Your task to perform on an android device: Clear the shopping cart on bestbuy.com. Add apple airpods to the cart on bestbuy.com Image 0: 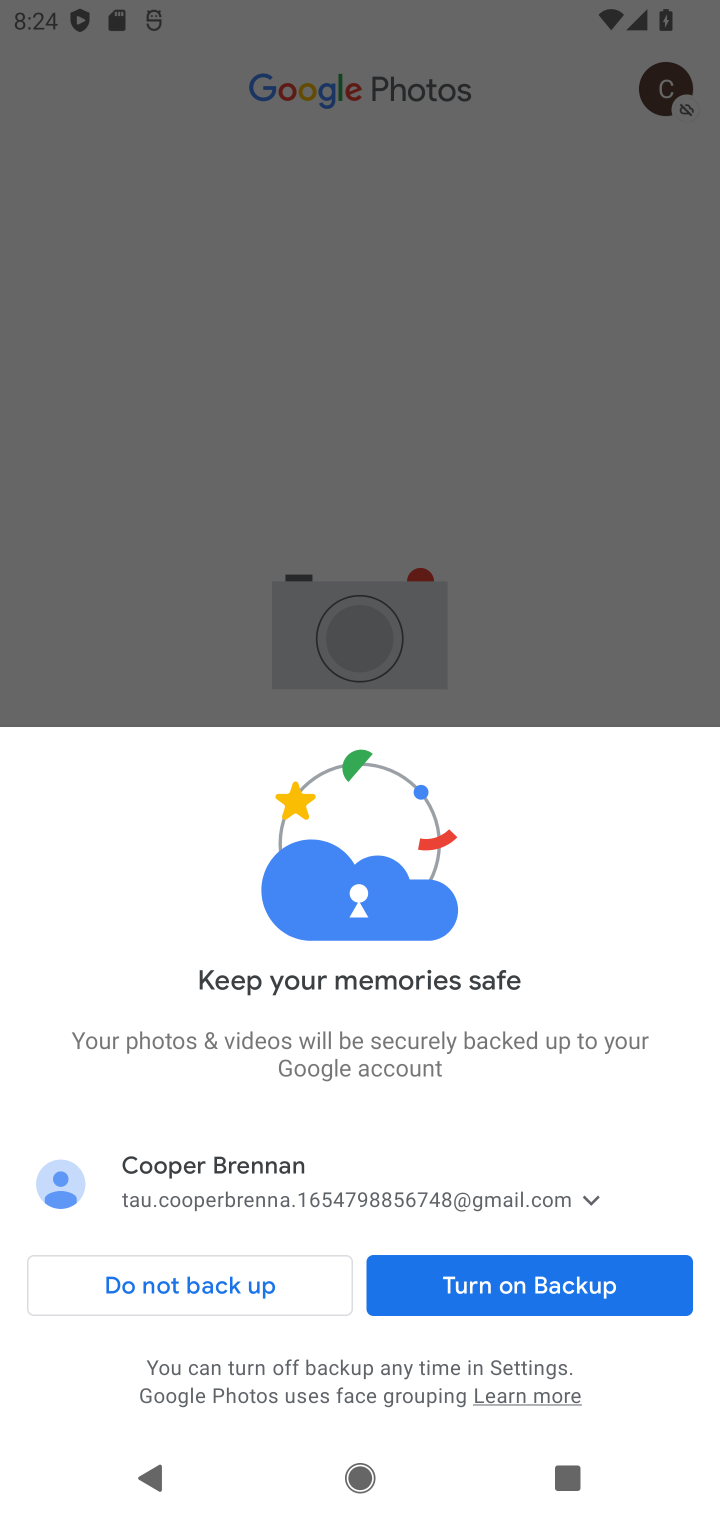
Step 0: press home button
Your task to perform on an android device: Clear the shopping cart on bestbuy.com. Add apple airpods to the cart on bestbuy.com Image 1: 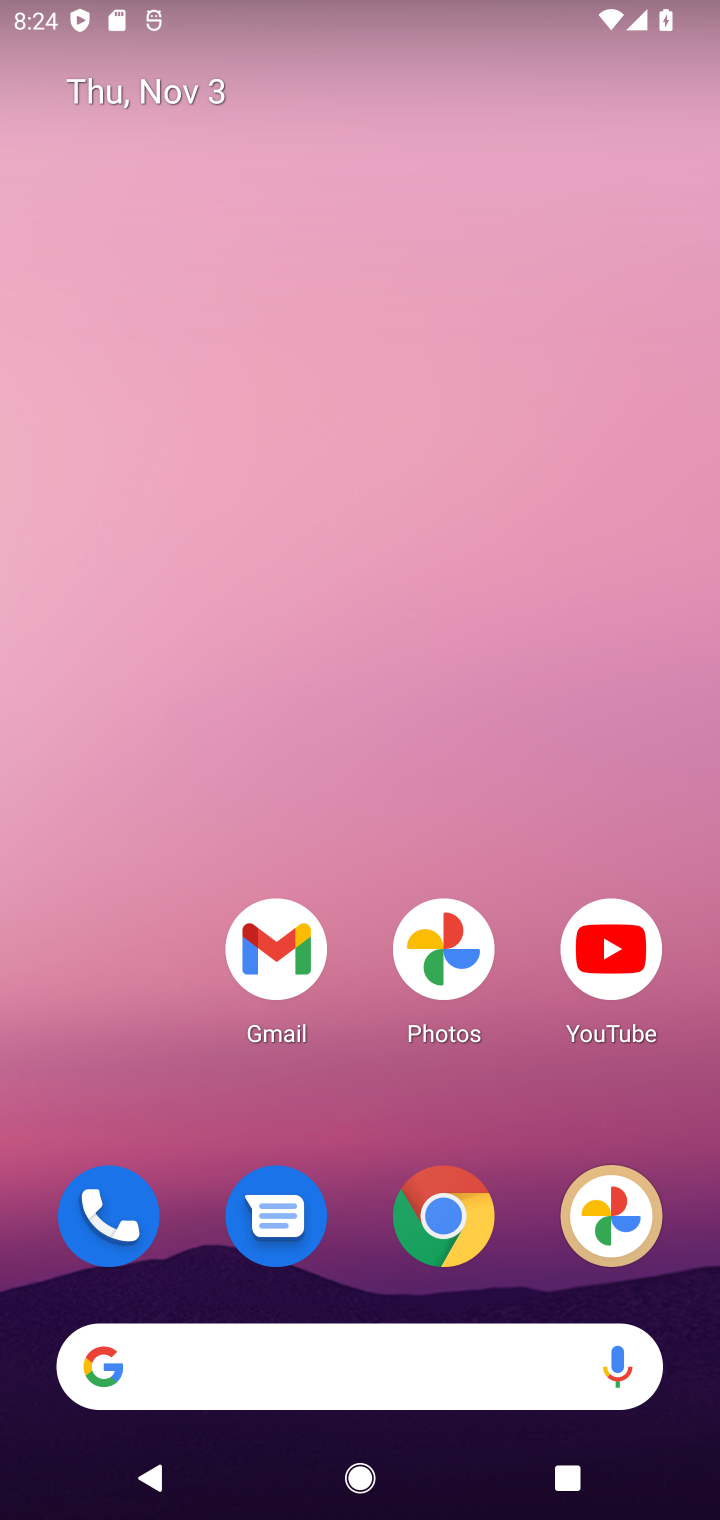
Step 1: click (449, 1212)
Your task to perform on an android device: Clear the shopping cart on bestbuy.com. Add apple airpods to the cart on bestbuy.com Image 2: 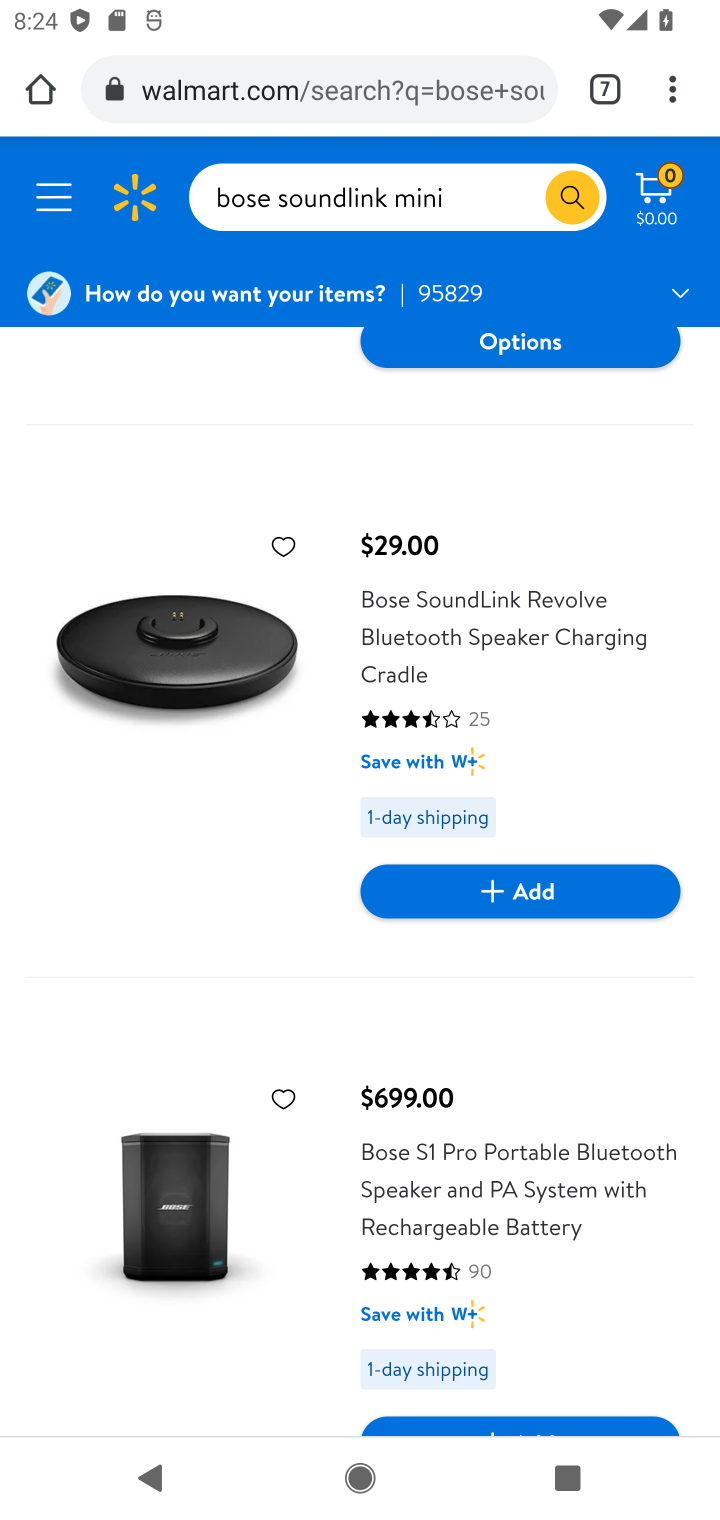
Step 2: click (608, 79)
Your task to perform on an android device: Clear the shopping cart on bestbuy.com. Add apple airpods to the cart on bestbuy.com Image 3: 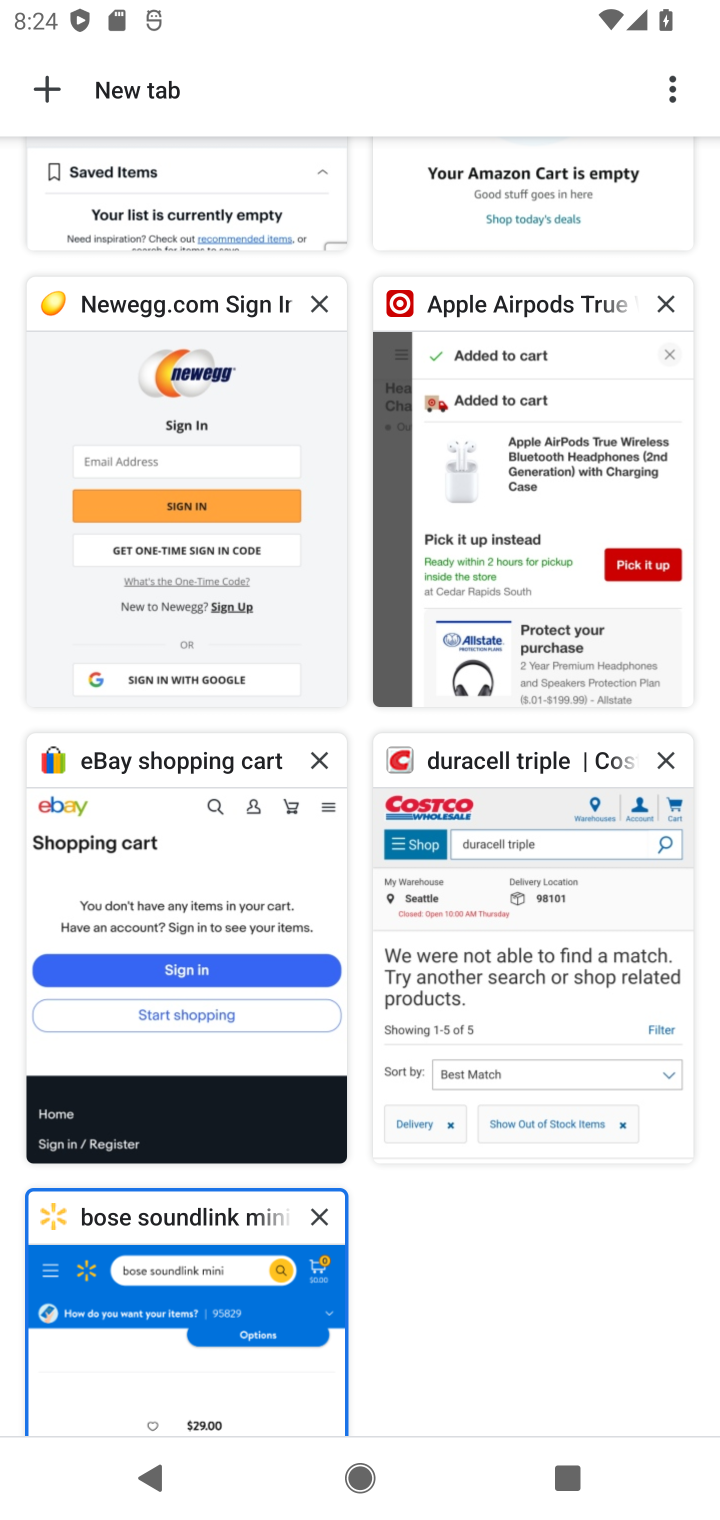
Step 3: drag from (184, 236) to (279, 970)
Your task to perform on an android device: Clear the shopping cart on bestbuy.com. Add apple airpods to the cart on bestbuy.com Image 4: 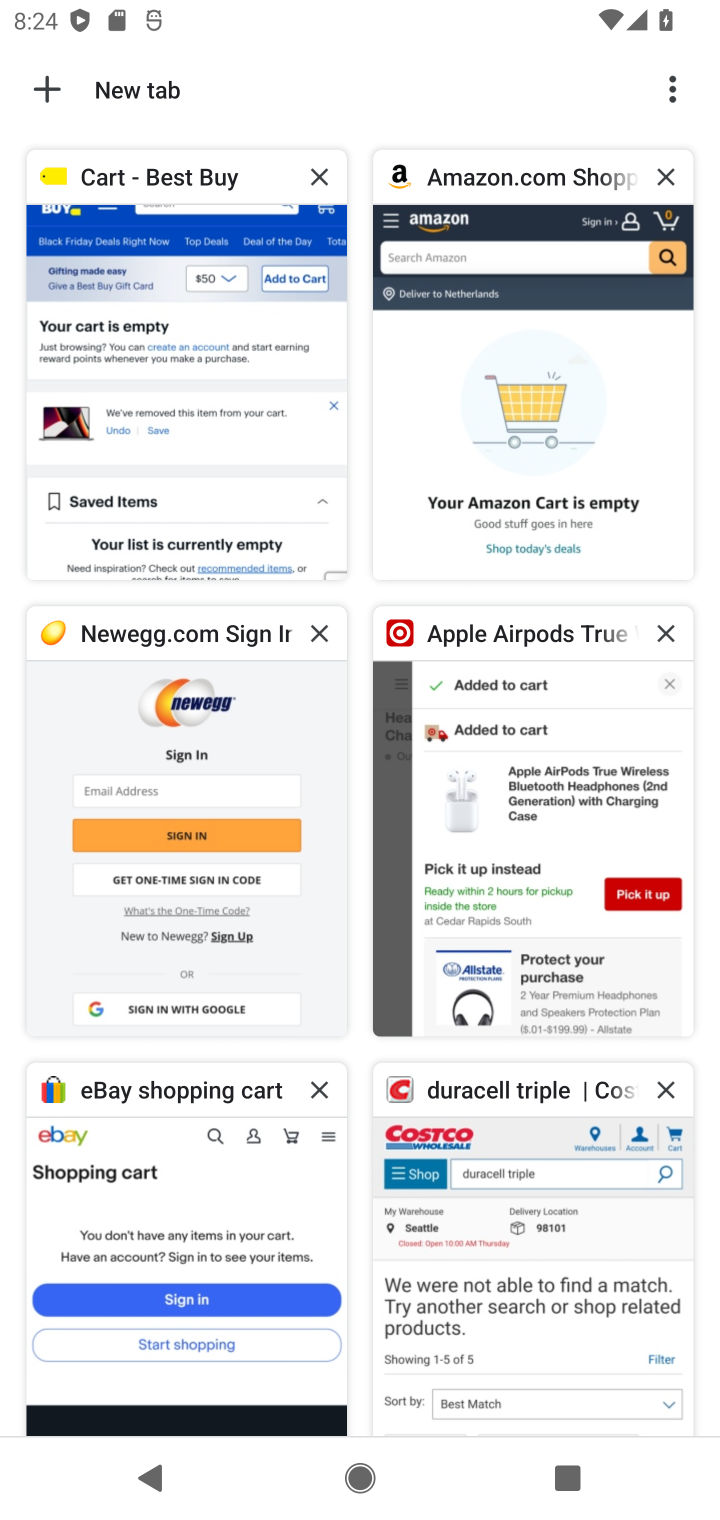
Step 4: click (213, 312)
Your task to perform on an android device: Clear the shopping cart on bestbuy.com. Add apple airpods to the cart on bestbuy.com Image 5: 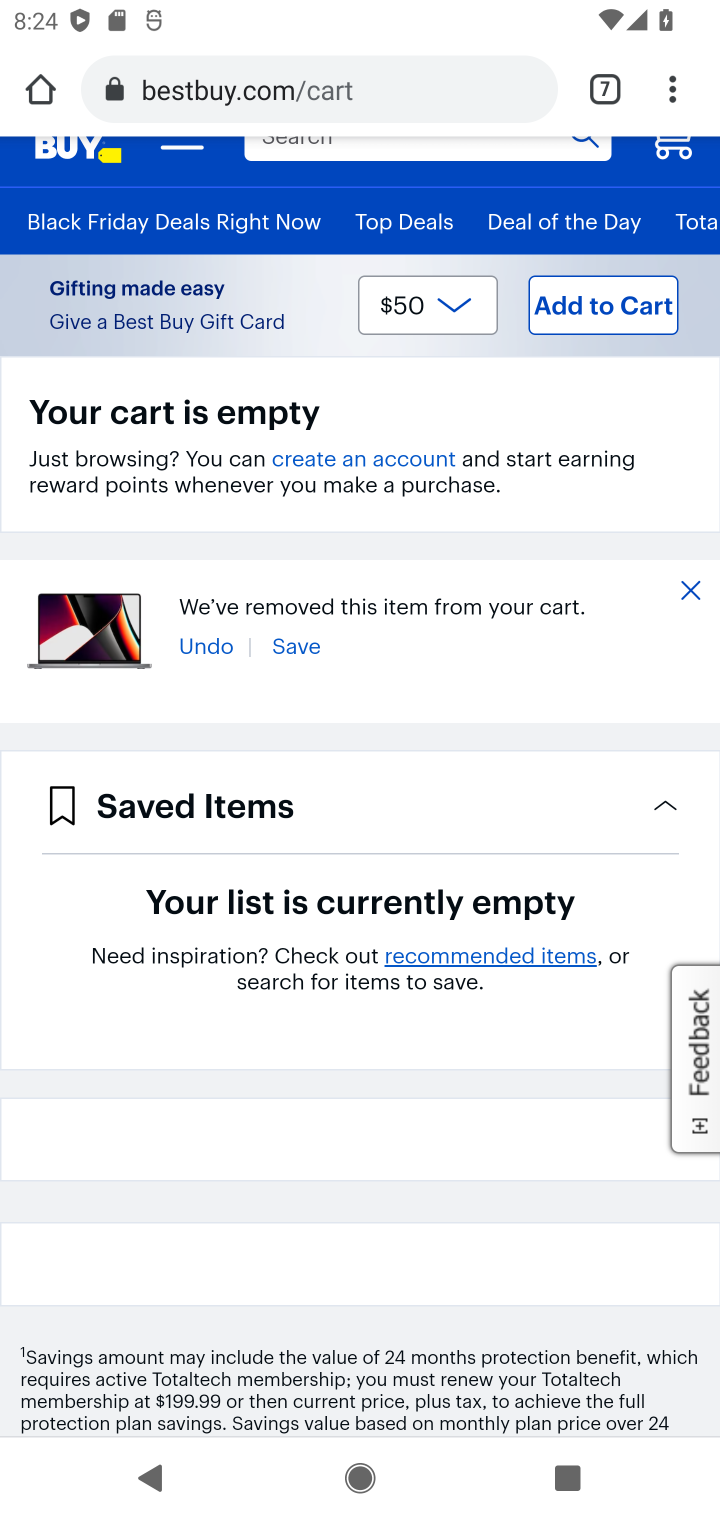
Step 5: click (389, 158)
Your task to perform on an android device: Clear the shopping cart on bestbuy.com. Add apple airpods to the cart on bestbuy.com Image 6: 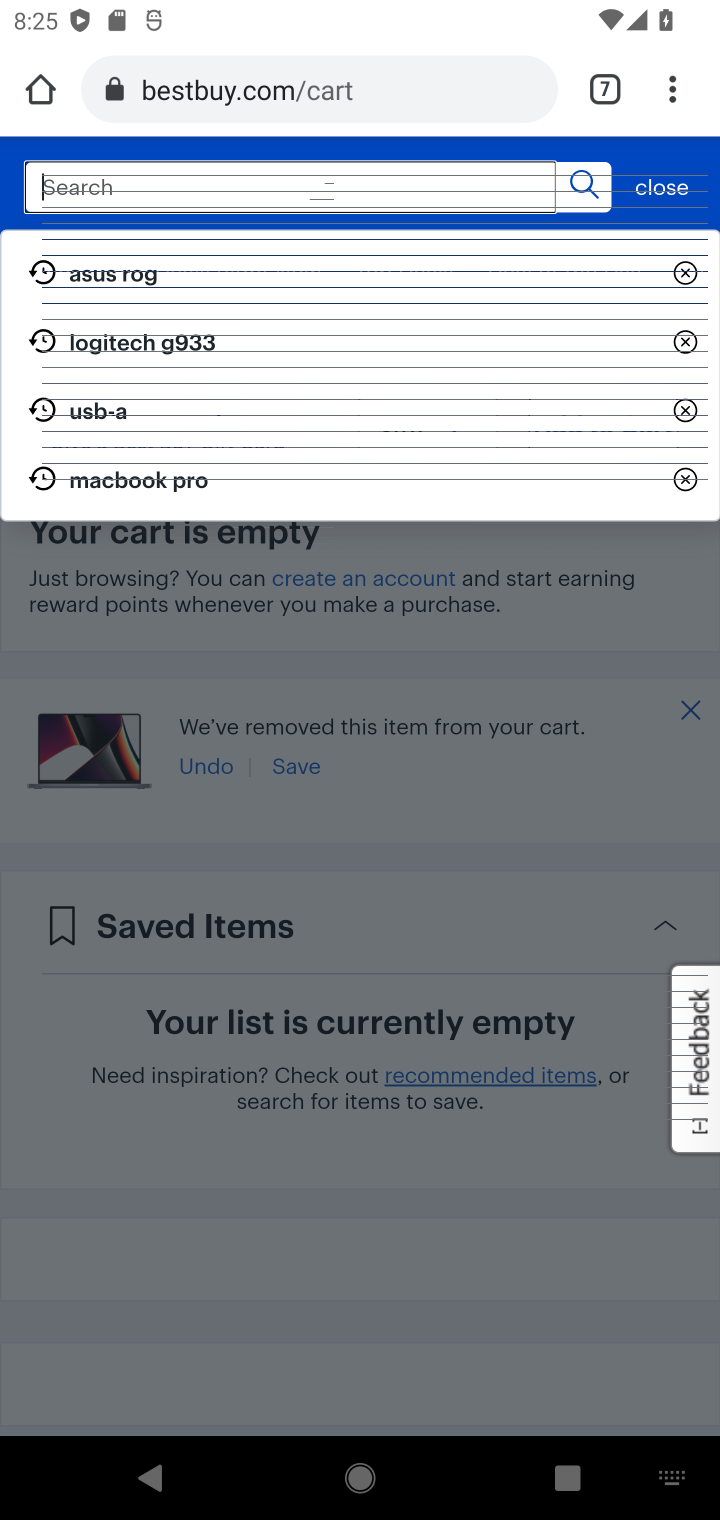
Step 6: type "apple airpods"
Your task to perform on an android device: Clear the shopping cart on bestbuy.com. Add apple airpods to the cart on bestbuy.com Image 7: 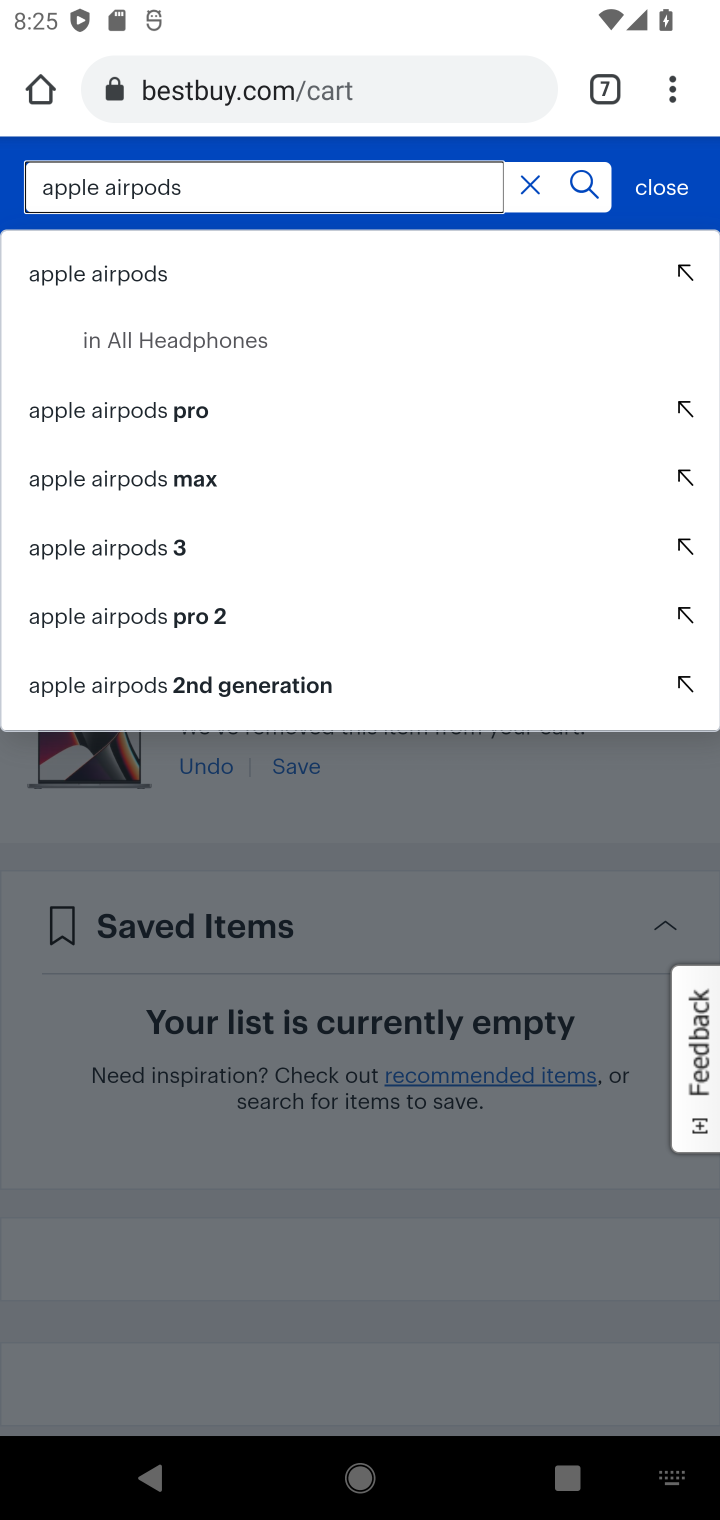
Step 7: click (588, 180)
Your task to perform on an android device: Clear the shopping cart on bestbuy.com. Add apple airpods to the cart on bestbuy.com Image 8: 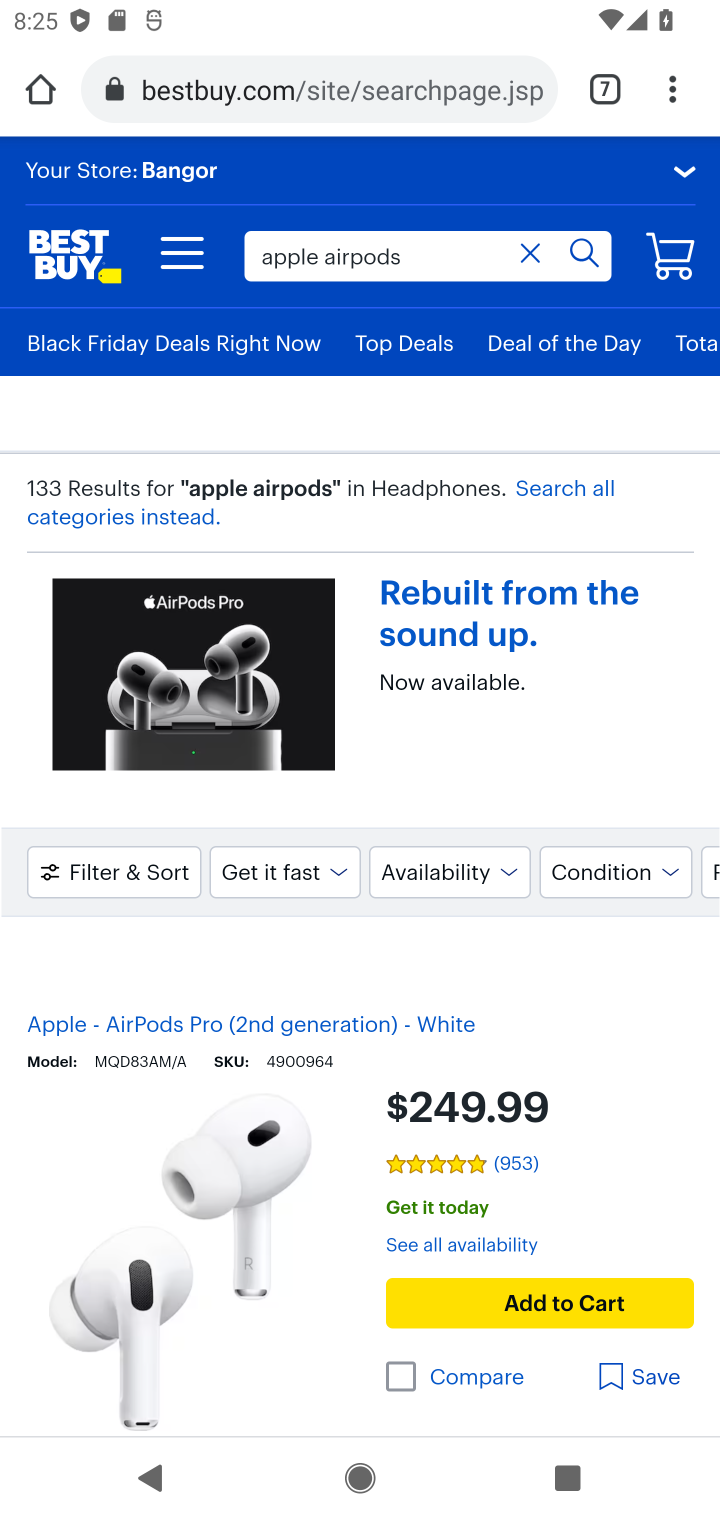
Step 8: click (526, 1284)
Your task to perform on an android device: Clear the shopping cart on bestbuy.com. Add apple airpods to the cart on bestbuy.com Image 9: 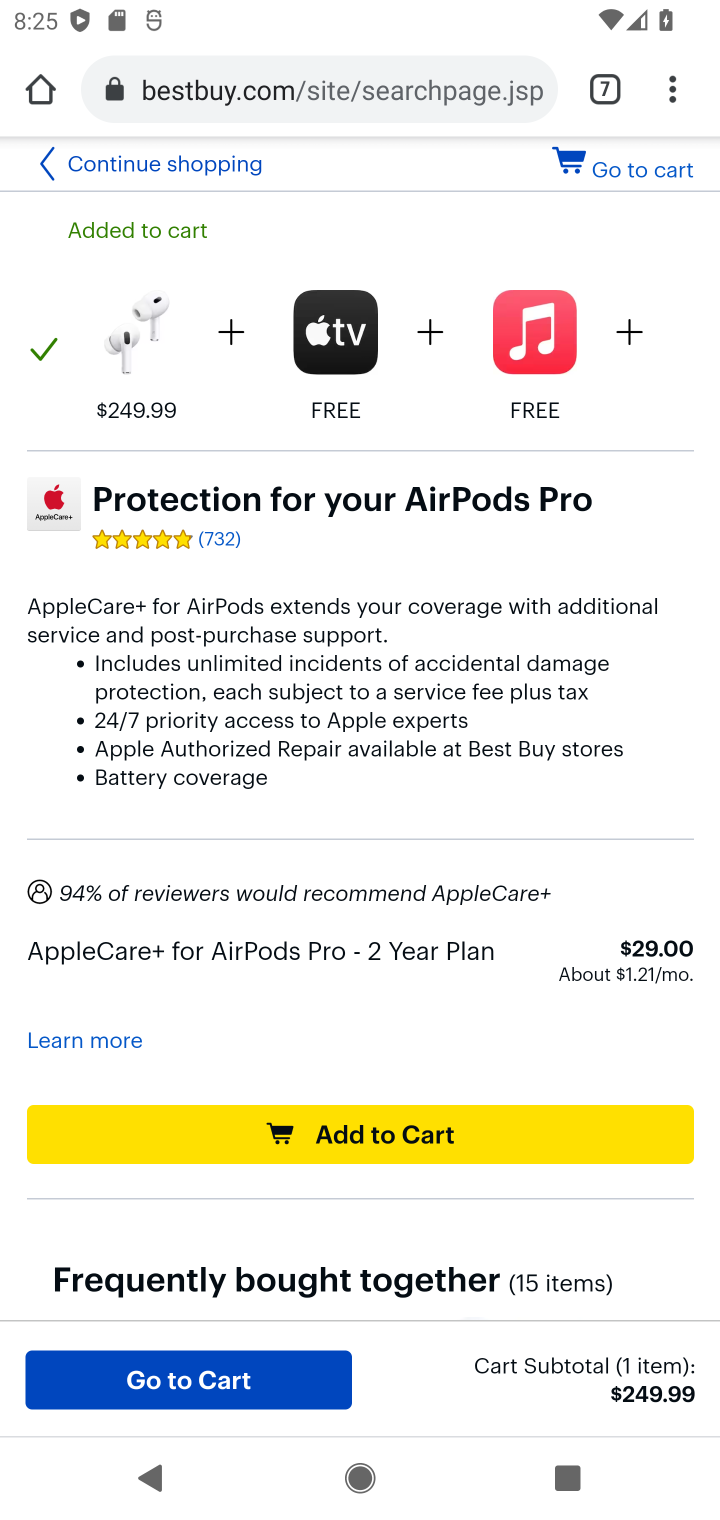
Step 9: task complete